Your task to perform on an android device: Is it going to rain today? Image 0: 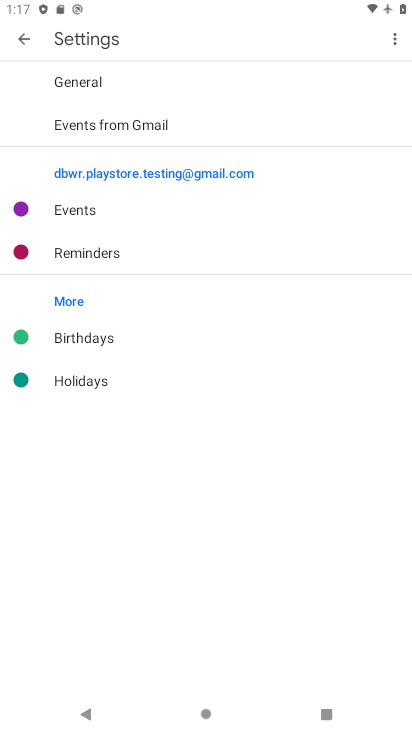
Step 0: press home button
Your task to perform on an android device: Is it going to rain today? Image 1: 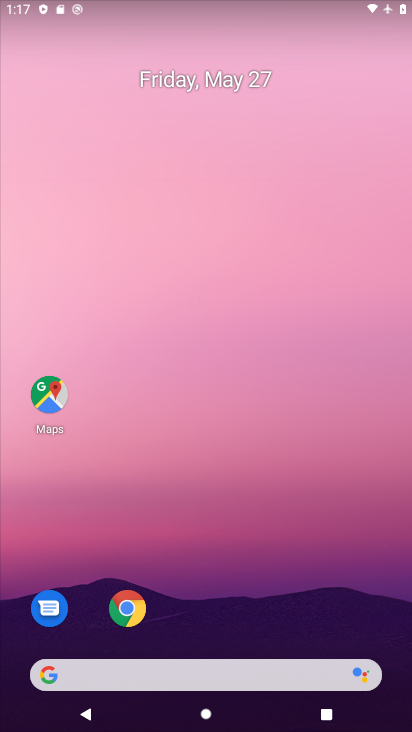
Step 1: click (51, 677)
Your task to perform on an android device: Is it going to rain today? Image 2: 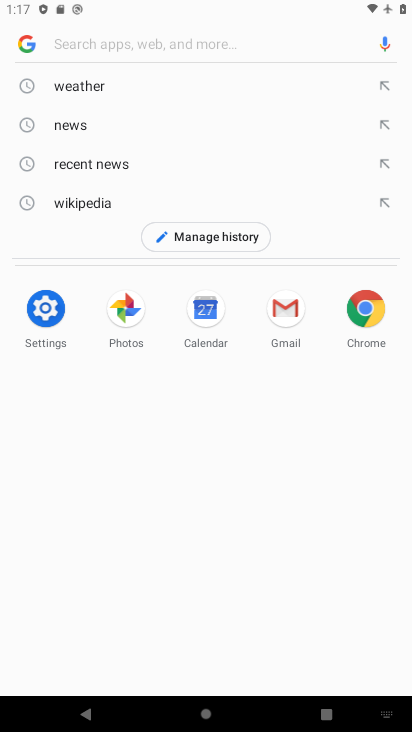
Step 2: click (92, 82)
Your task to perform on an android device: Is it going to rain today? Image 3: 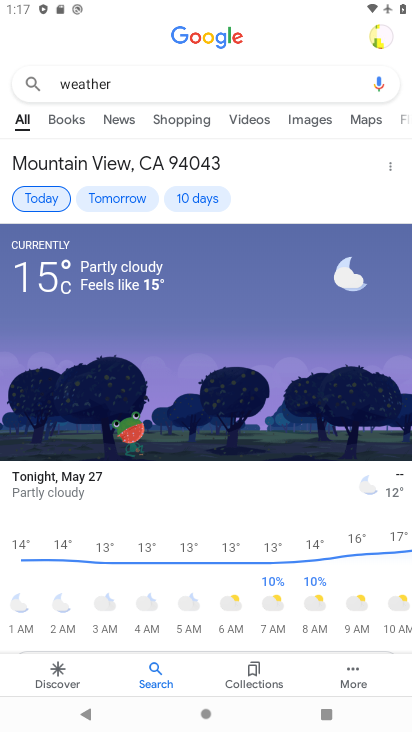
Step 3: task complete